Your task to perform on an android device: Go to location settings Image 0: 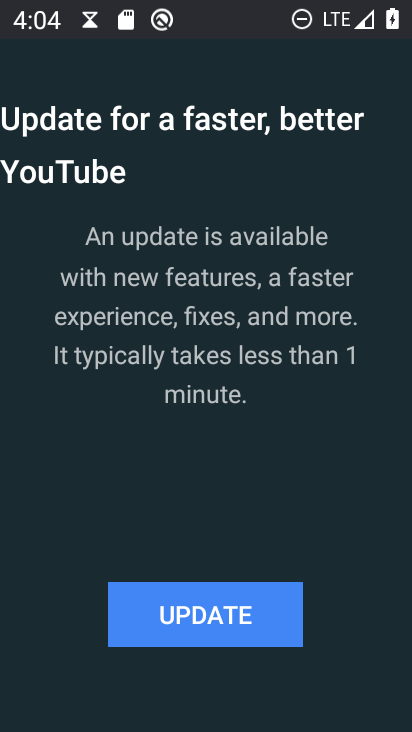
Step 0: press home button
Your task to perform on an android device: Go to location settings Image 1: 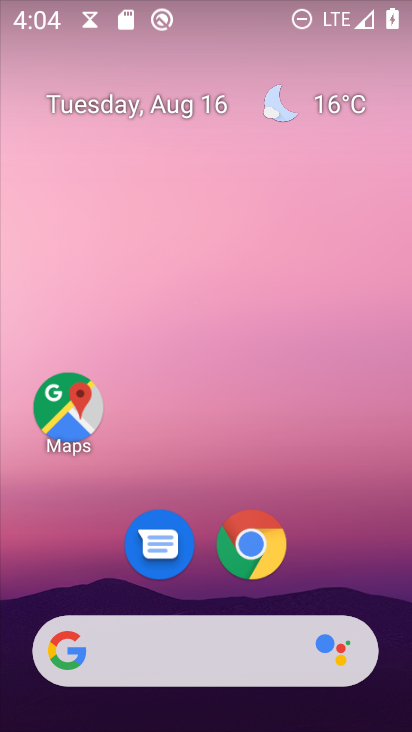
Step 1: drag from (212, 672) to (220, 135)
Your task to perform on an android device: Go to location settings Image 2: 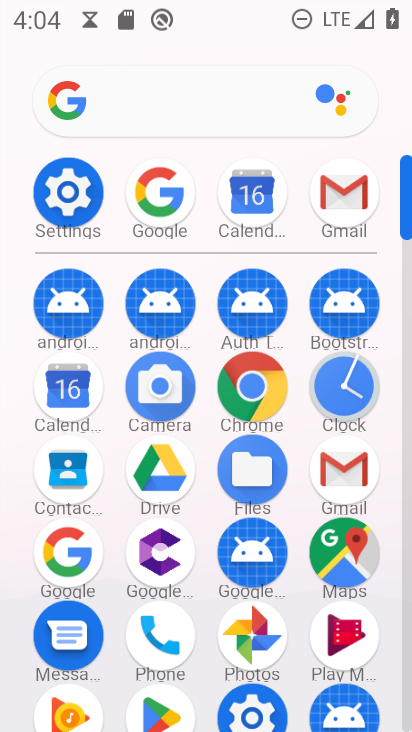
Step 2: click (68, 193)
Your task to perform on an android device: Go to location settings Image 3: 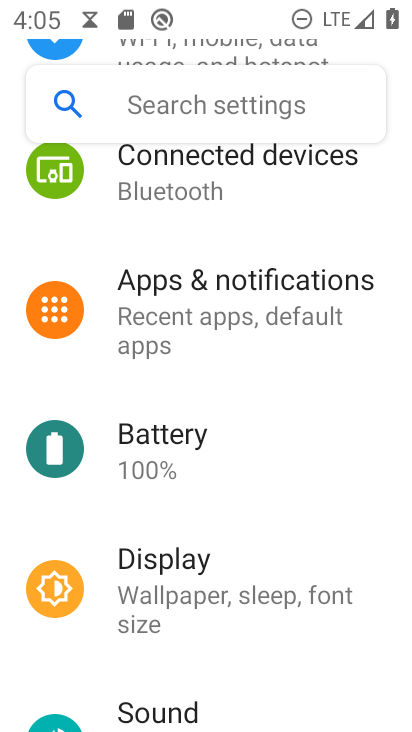
Step 3: drag from (193, 636) to (277, 467)
Your task to perform on an android device: Go to location settings Image 4: 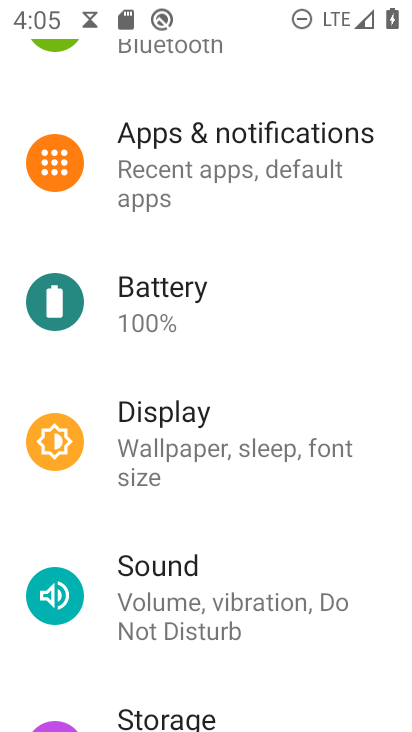
Step 4: drag from (229, 667) to (317, 481)
Your task to perform on an android device: Go to location settings Image 5: 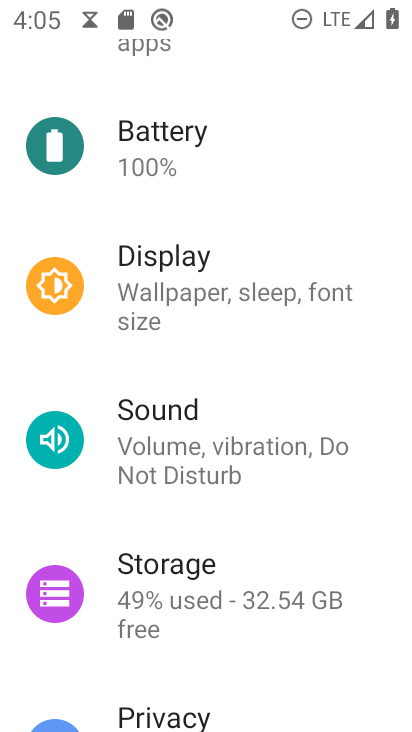
Step 5: drag from (216, 533) to (272, 357)
Your task to perform on an android device: Go to location settings Image 6: 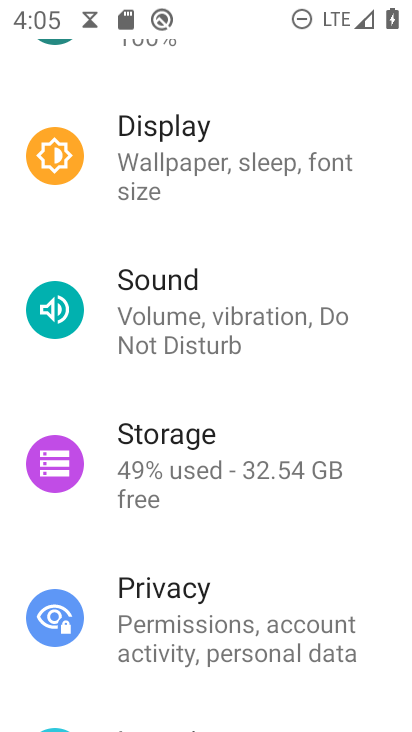
Step 6: drag from (219, 521) to (256, 379)
Your task to perform on an android device: Go to location settings Image 7: 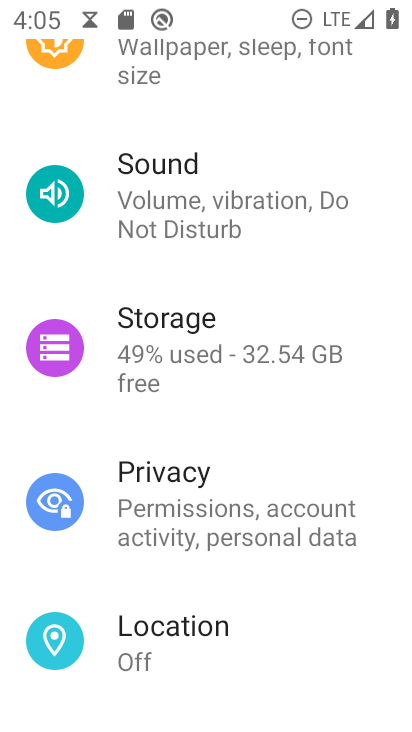
Step 7: drag from (196, 575) to (241, 413)
Your task to perform on an android device: Go to location settings Image 8: 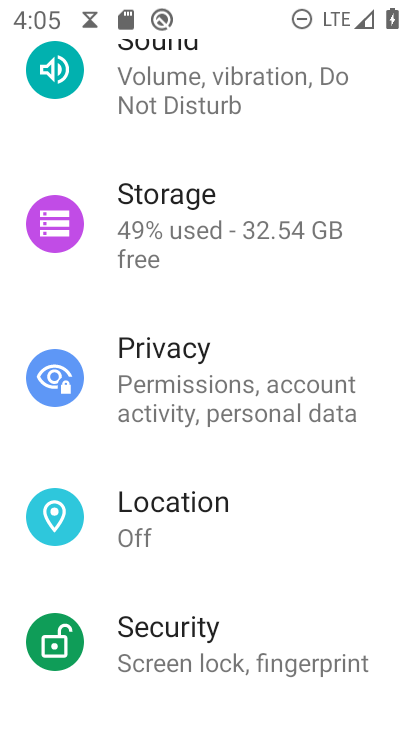
Step 8: click (203, 515)
Your task to perform on an android device: Go to location settings Image 9: 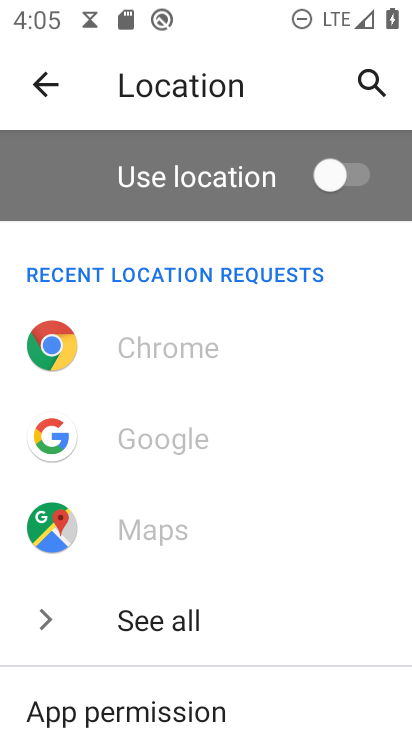
Step 9: task complete